Your task to perform on an android device: open app "Google Sheets" (install if not already installed) Image 0: 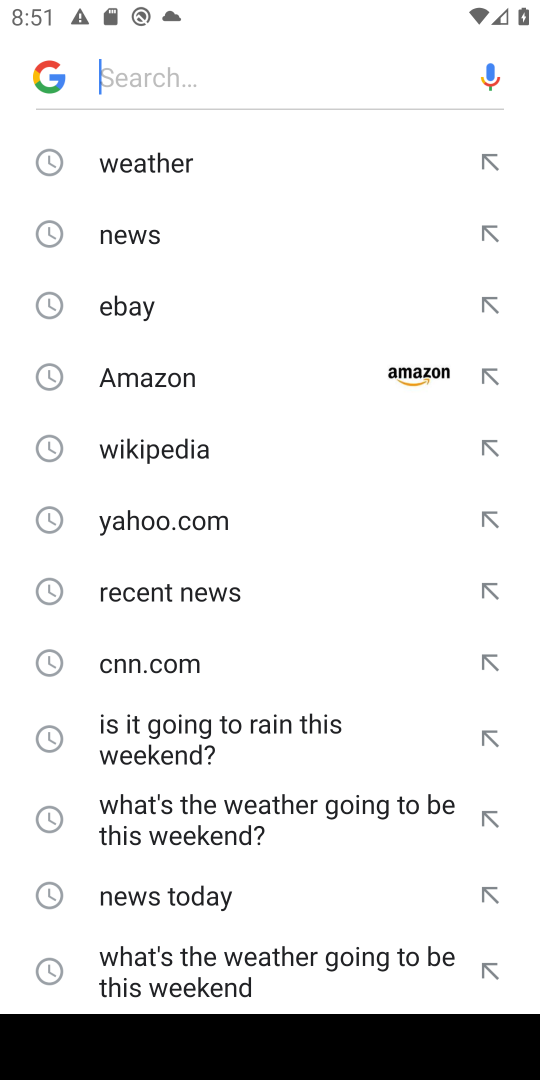
Step 0: press home button
Your task to perform on an android device: open app "Google Sheets" (install if not already installed) Image 1: 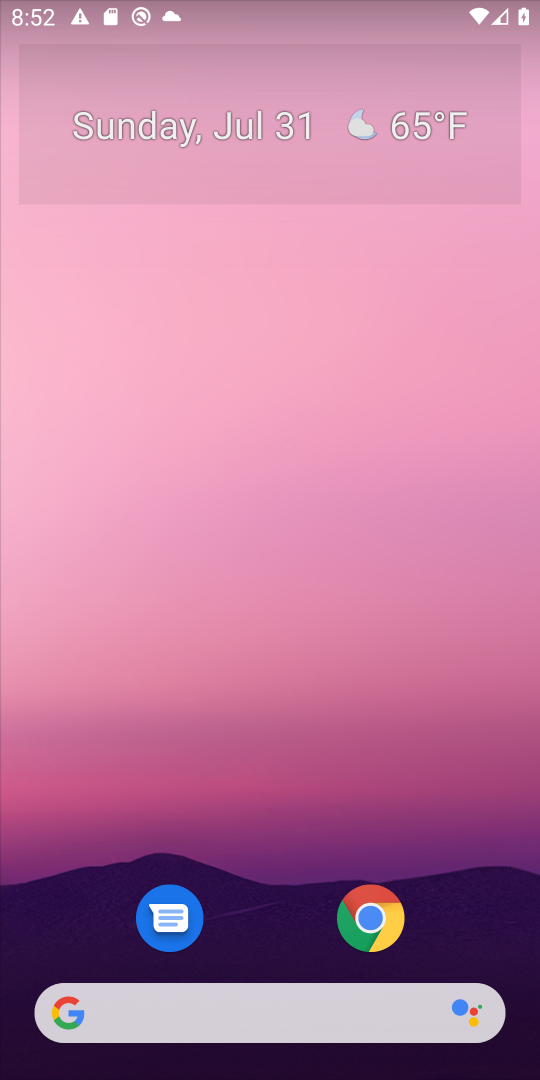
Step 1: drag from (168, 1076) to (204, 252)
Your task to perform on an android device: open app "Google Sheets" (install if not already installed) Image 2: 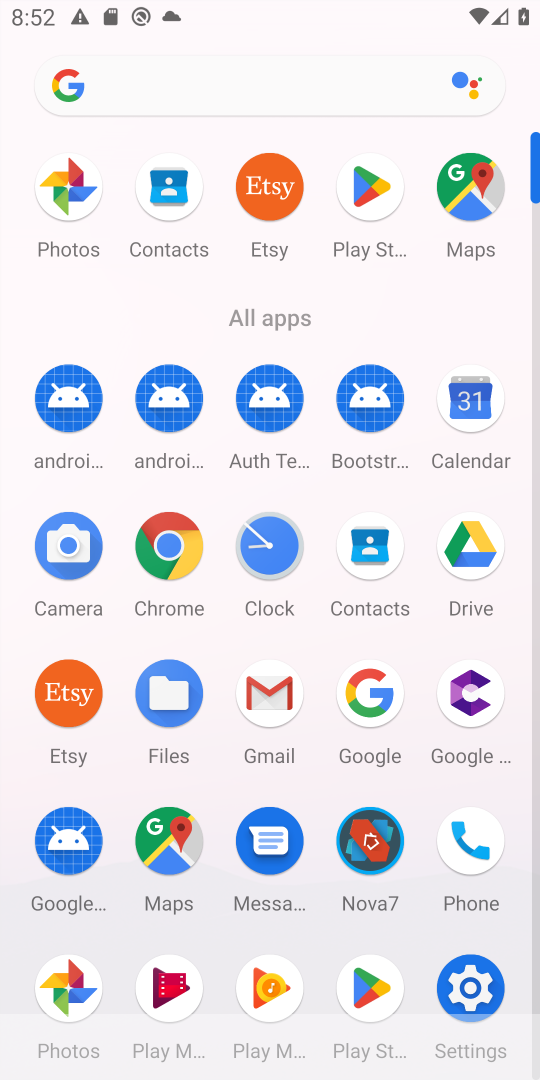
Step 2: click (371, 183)
Your task to perform on an android device: open app "Google Sheets" (install if not already installed) Image 3: 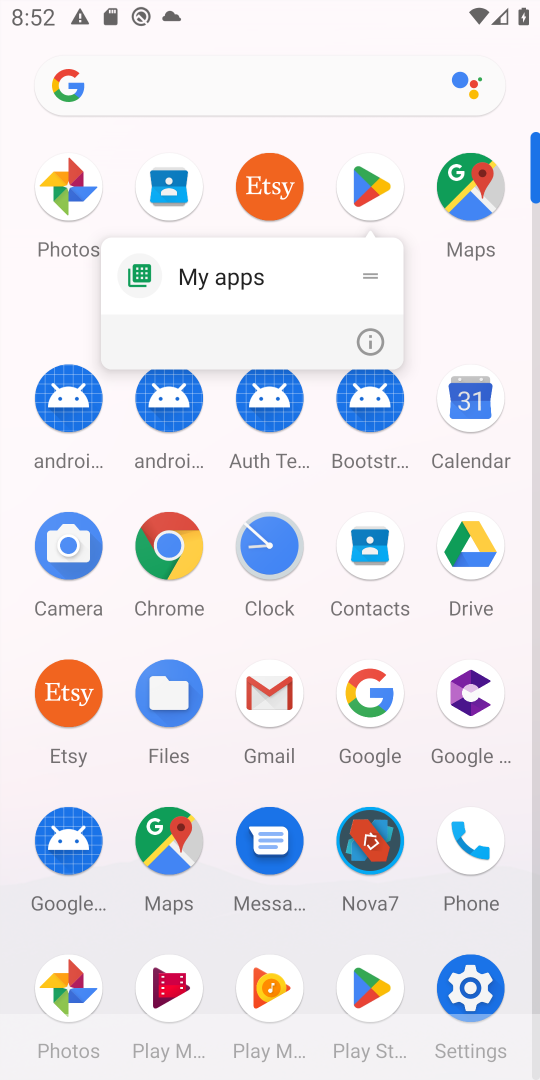
Step 3: click (371, 183)
Your task to perform on an android device: open app "Google Sheets" (install if not already installed) Image 4: 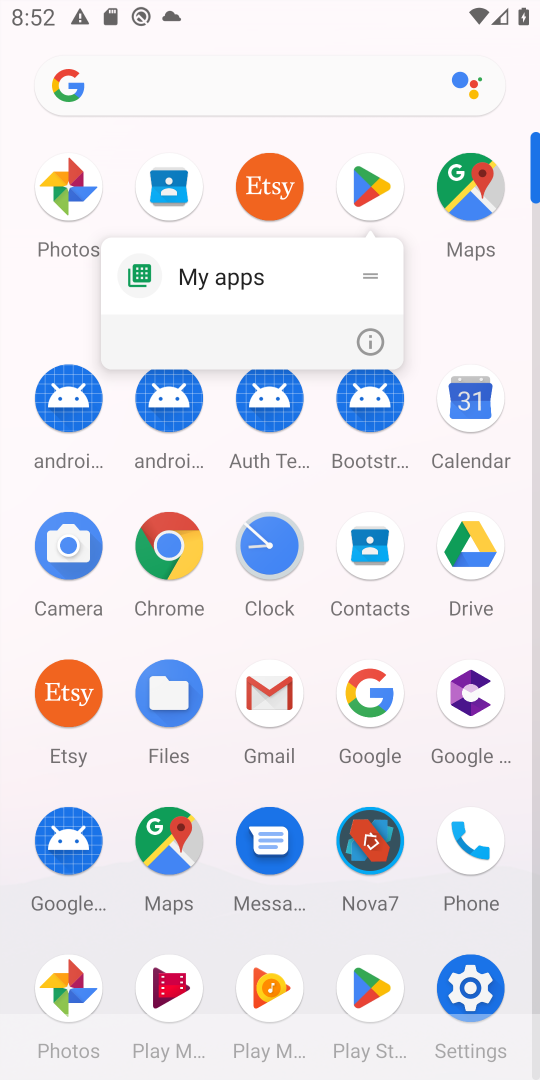
Step 4: click (371, 183)
Your task to perform on an android device: open app "Google Sheets" (install if not already installed) Image 5: 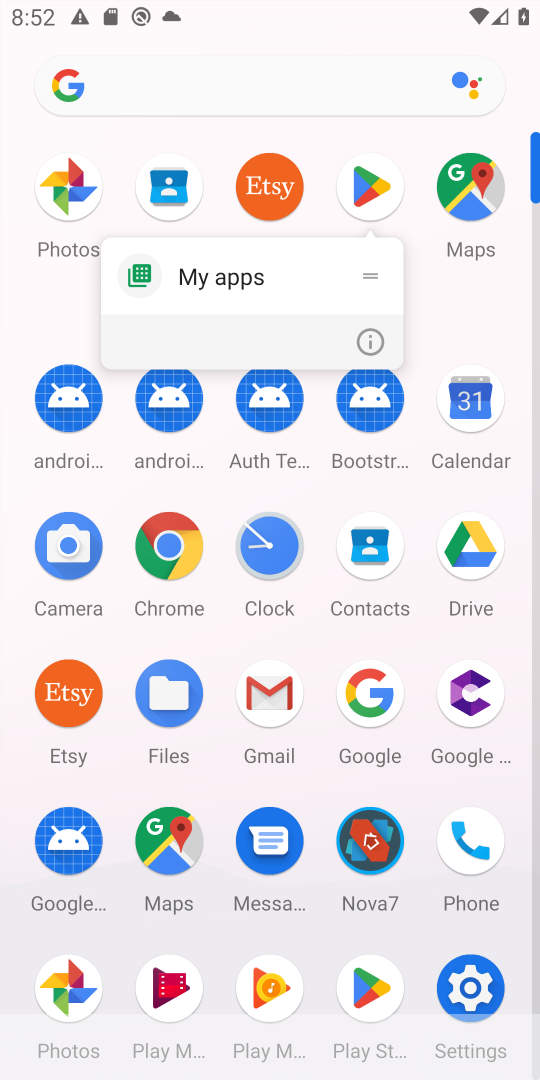
Step 5: click (368, 171)
Your task to perform on an android device: open app "Google Sheets" (install if not already installed) Image 6: 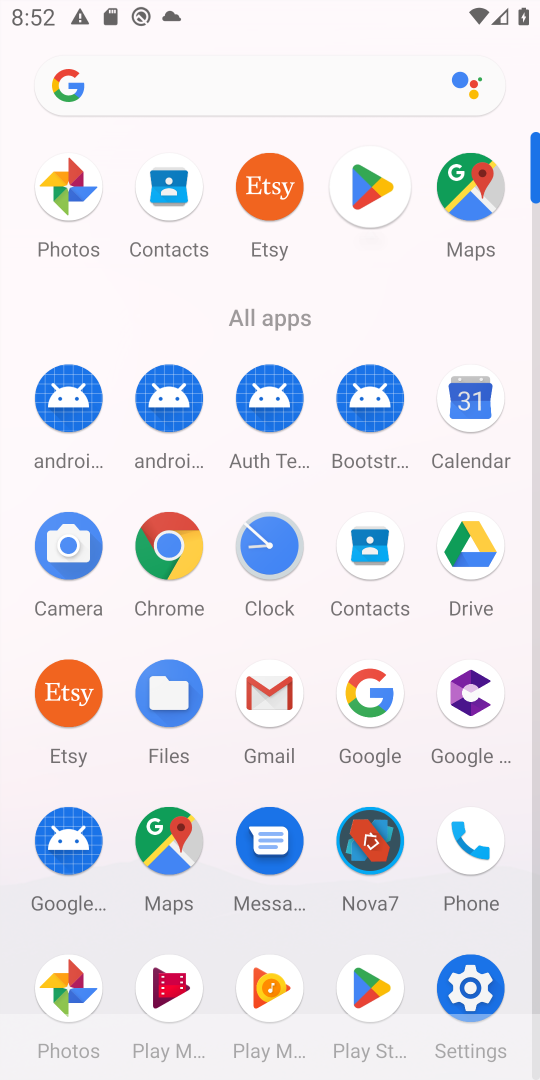
Step 6: click (368, 171)
Your task to perform on an android device: open app "Google Sheets" (install if not already installed) Image 7: 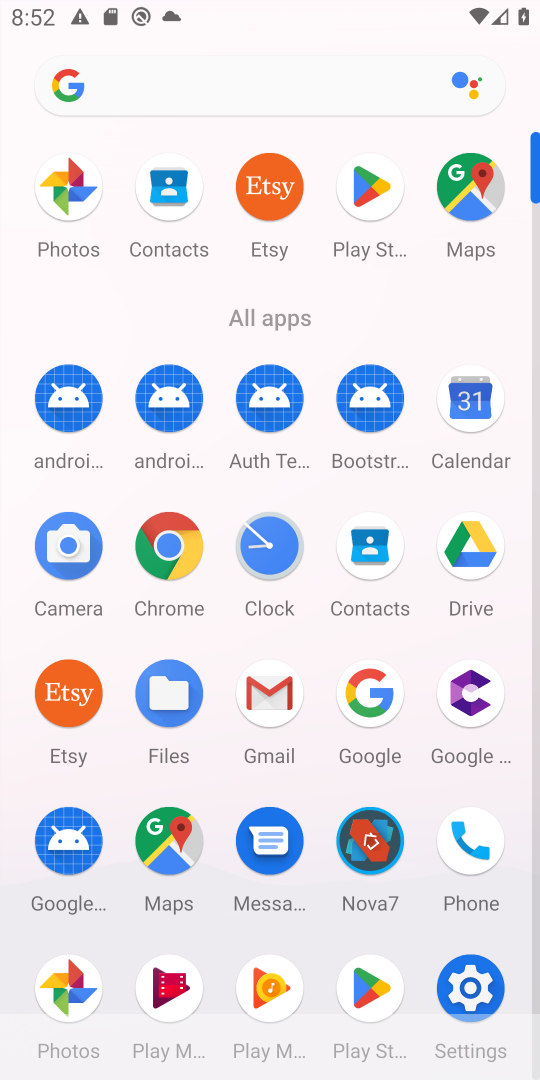
Step 7: click (368, 171)
Your task to perform on an android device: open app "Google Sheets" (install if not already installed) Image 8: 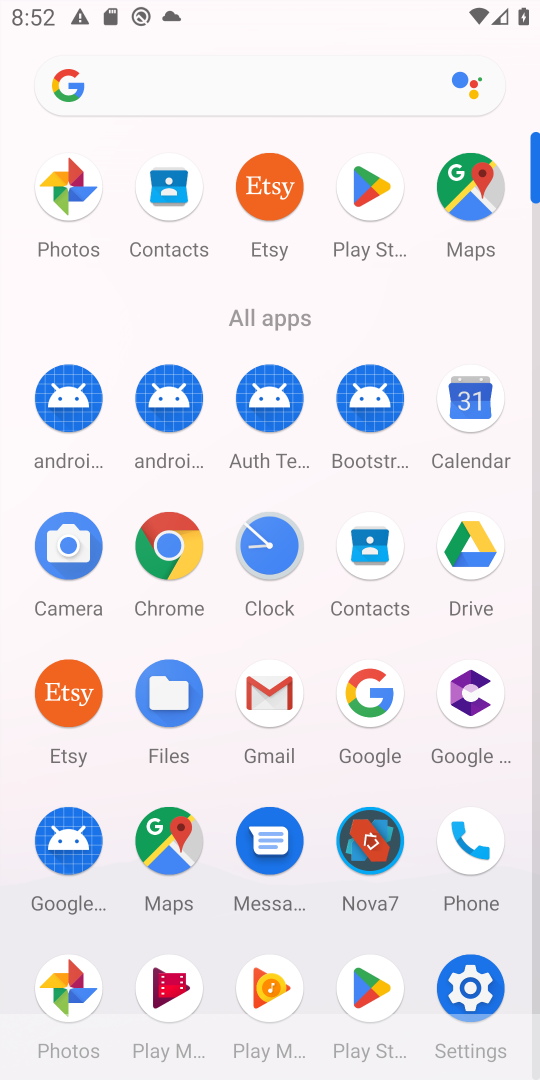
Step 8: click (368, 171)
Your task to perform on an android device: open app "Google Sheets" (install if not already installed) Image 9: 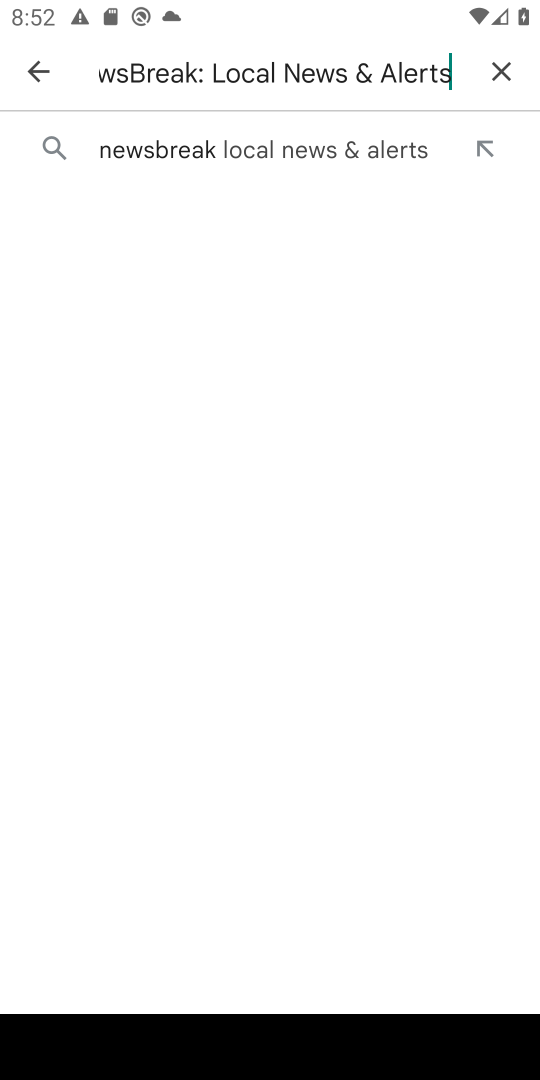
Step 9: click (501, 69)
Your task to perform on an android device: open app "Google Sheets" (install if not already installed) Image 10: 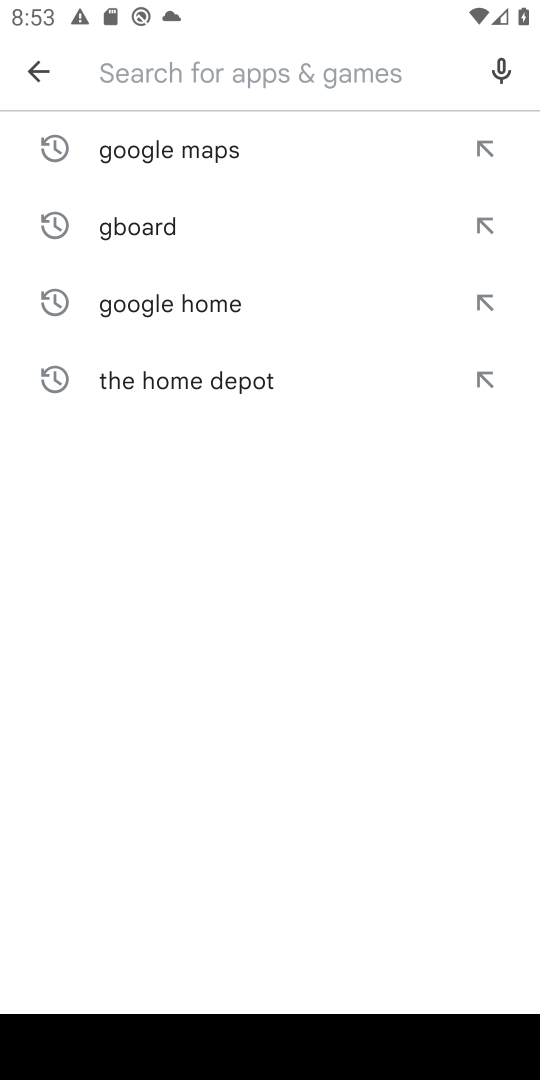
Step 10: type "Google Sheets"
Your task to perform on an android device: open app "Google Sheets" (install if not already installed) Image 11: 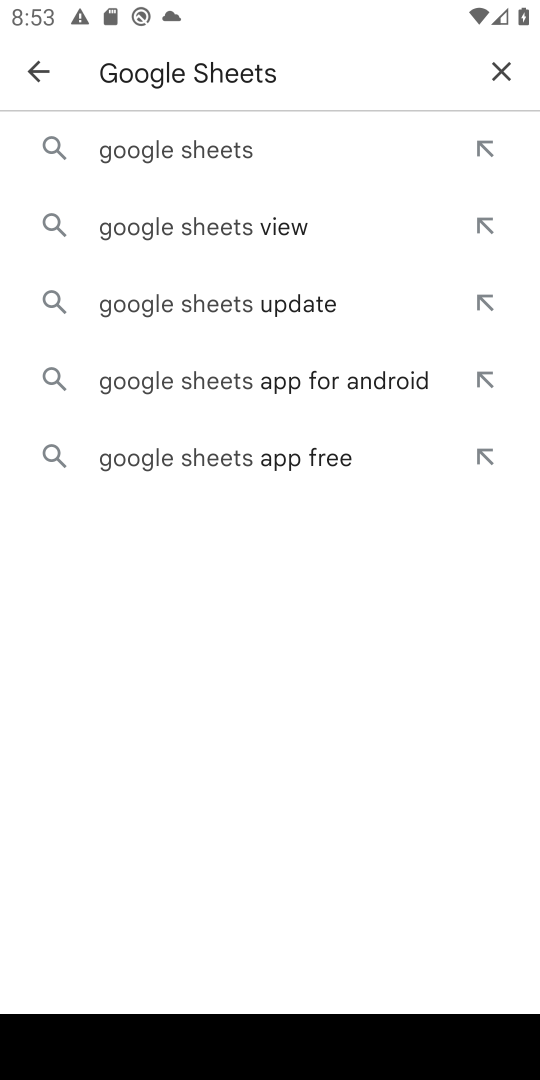
Step 11: click (208, 147)
Your task to perform on an android device: open app "Google Sheets" (install if not already installed) Image 12: 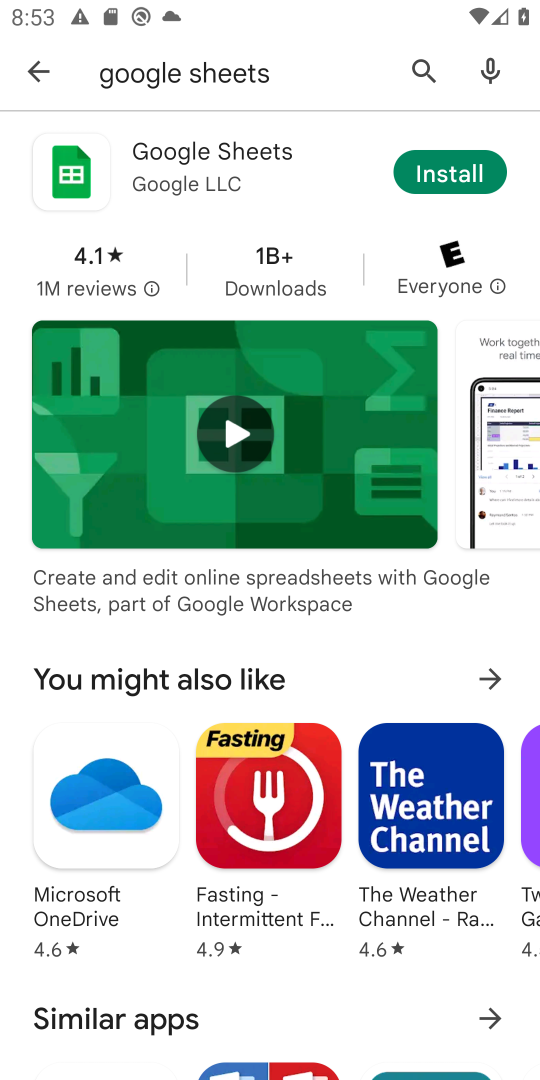
Step 12: click (454, 180)
Your task to perform on an android device: open app "Google Sheets" (install if not already installed) Image 13: 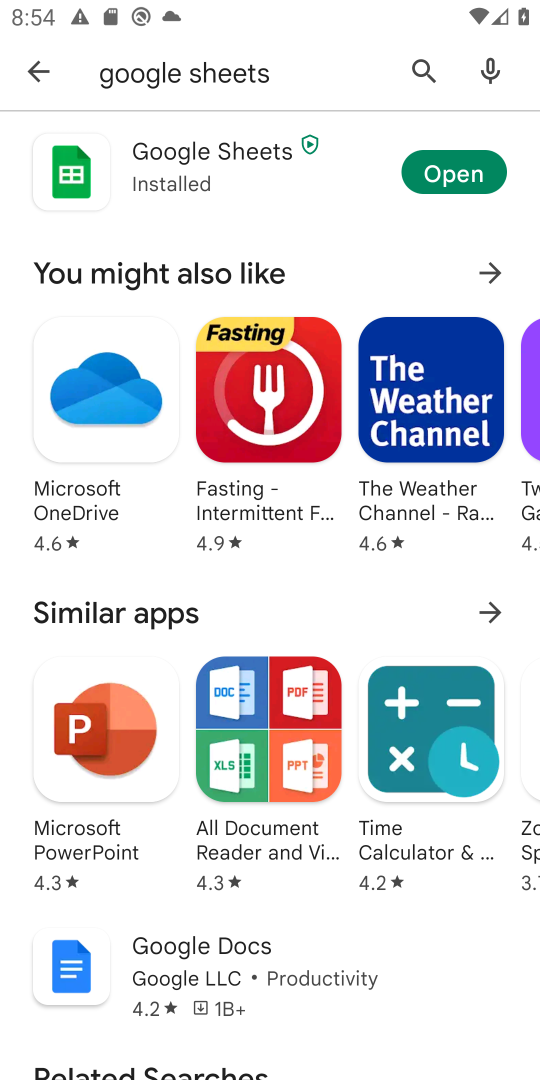
Step 13: click (483, 169)
Your task to perform on an android device: open app "Google Sheets" (install if not already installed) Image 14: 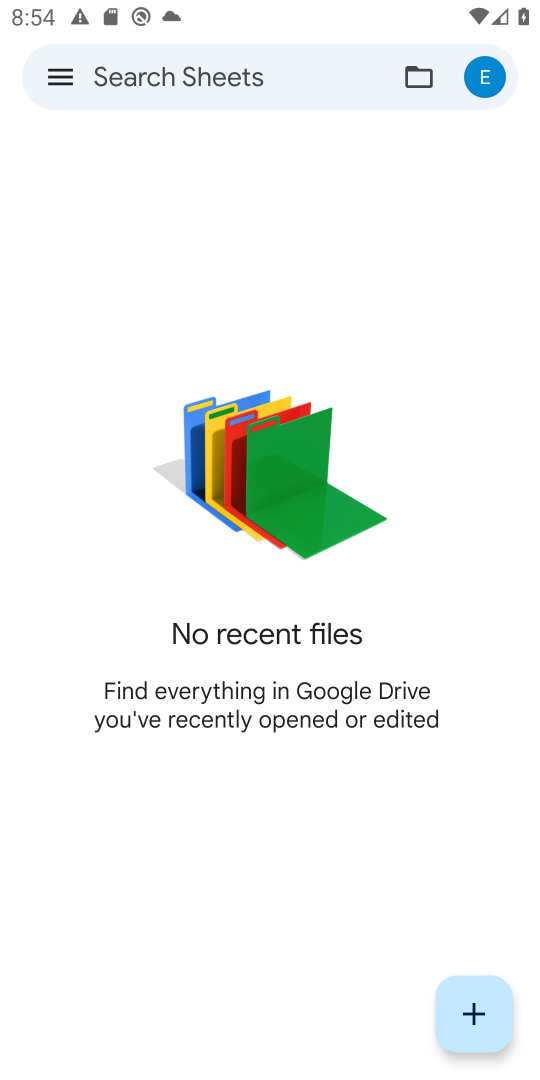
Step 14: task complete